Your task to perform on an android device: change the clock display to analog Image 0: 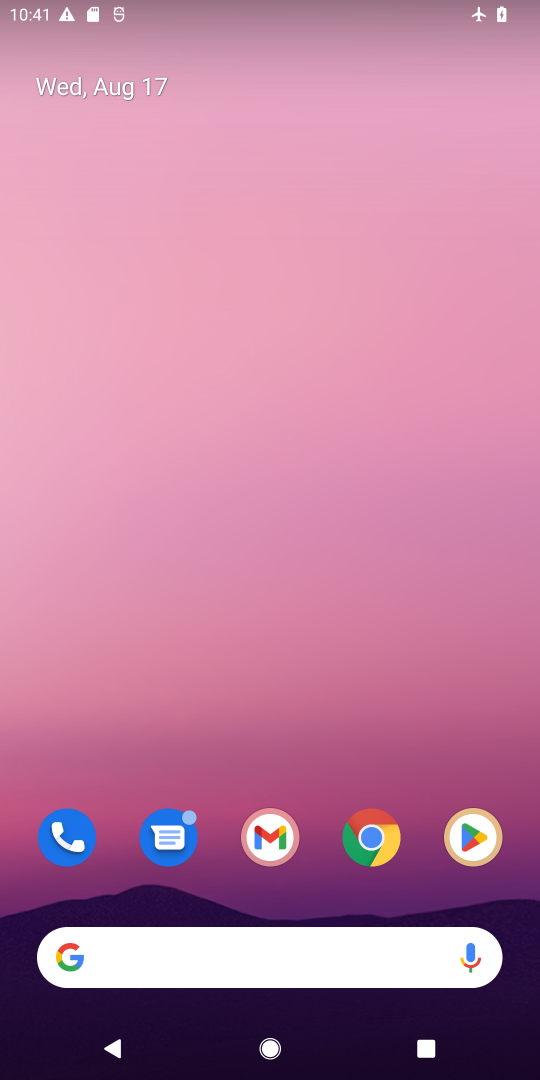
Step 0: drag from (190, 958) to (339, 194)
Your task to perform on an android device: change the clock display to analog Image 1: 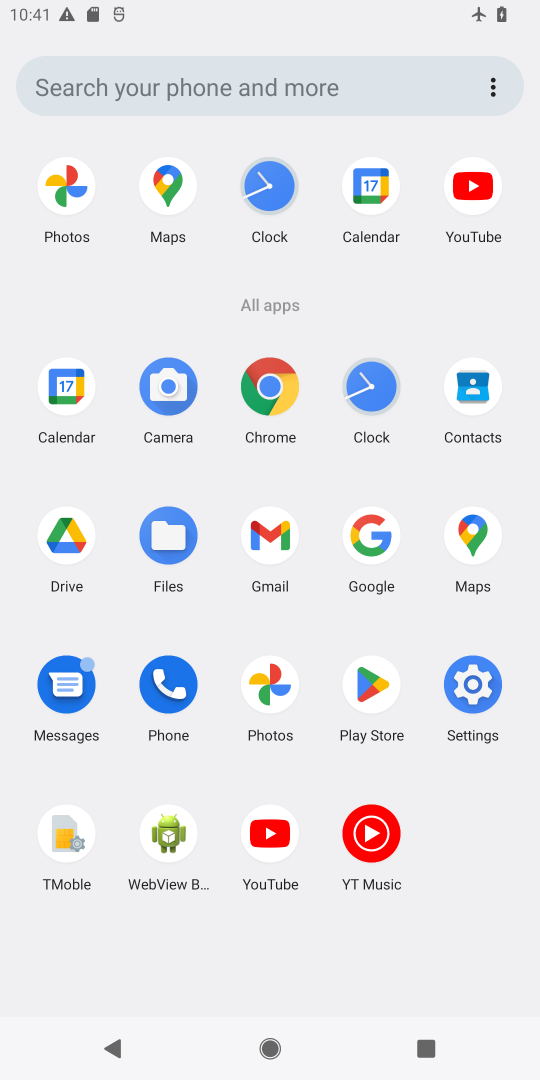
Step 1: click (271, 189)
Your task to perform on an android device: change the clock display to analog Image 2: 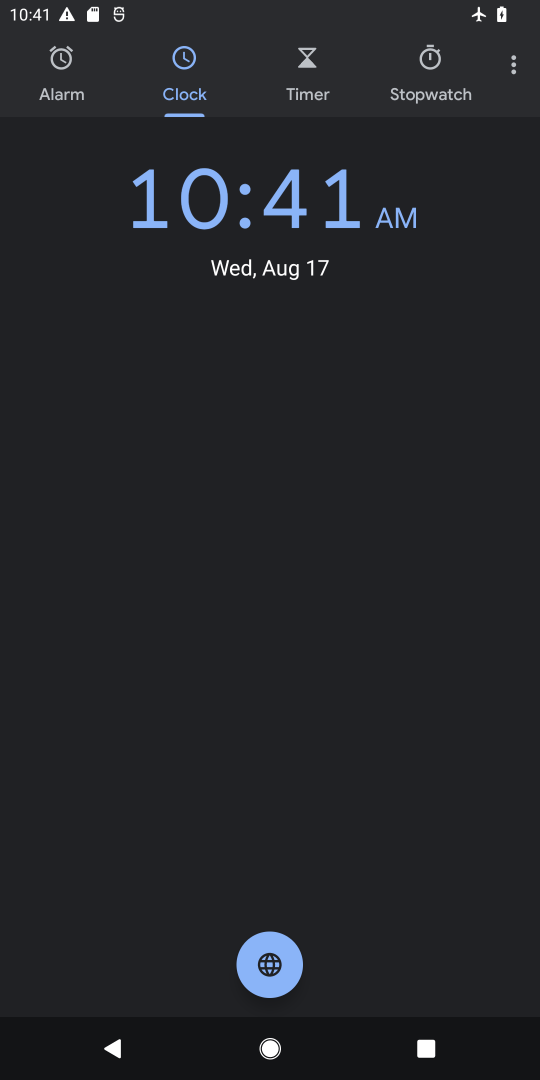
Step 2: click (513, 67)
Your task to perform on an android device: change the clock display to analog Image 3: 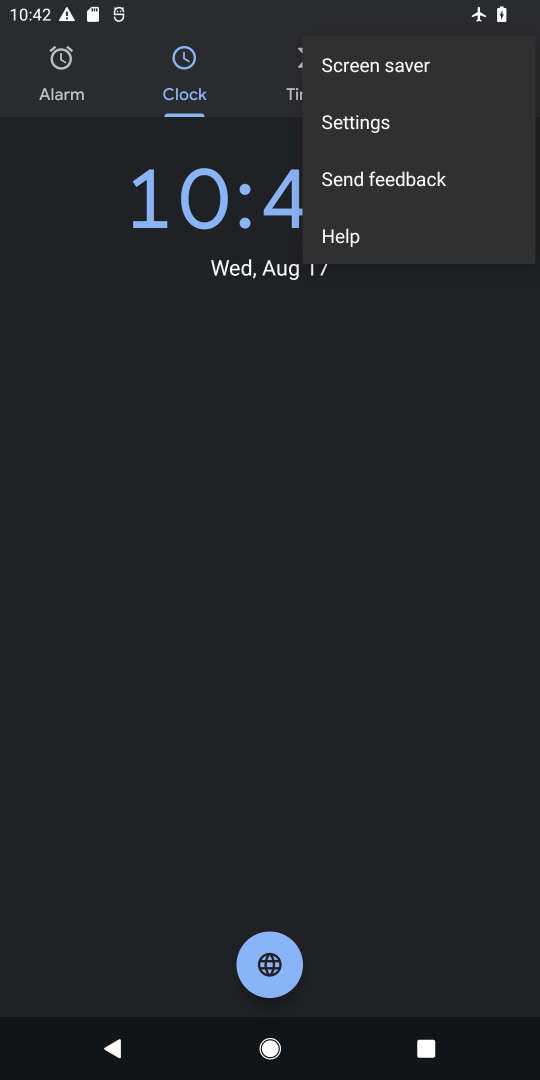
Step 3: click (380, 132)
Your task to perform on an android device: change the clock display to analog Image 4: 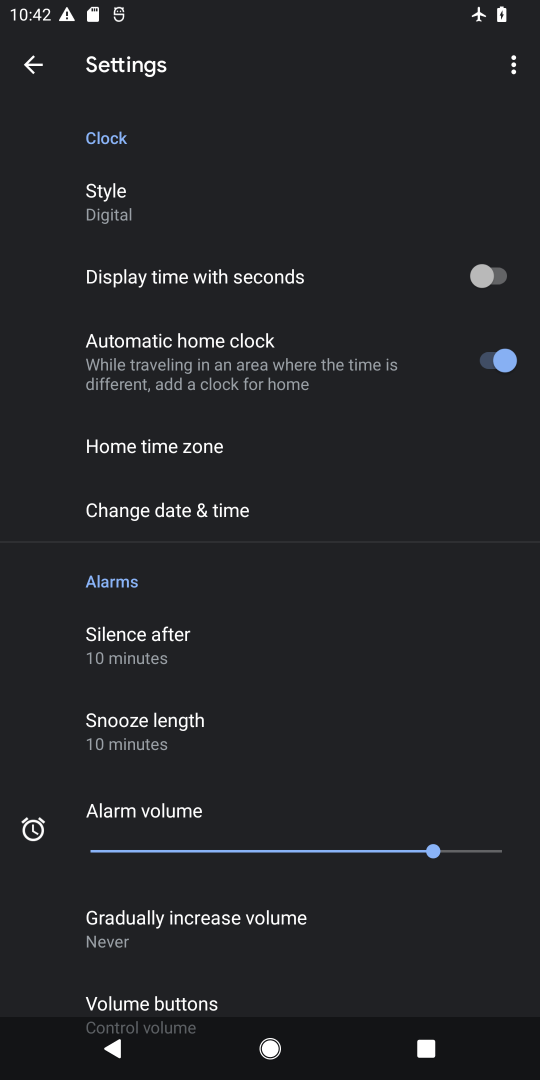
Step 4: click (106, 217)
Your task to perform on an android device: change the clock display to analog Image 5: 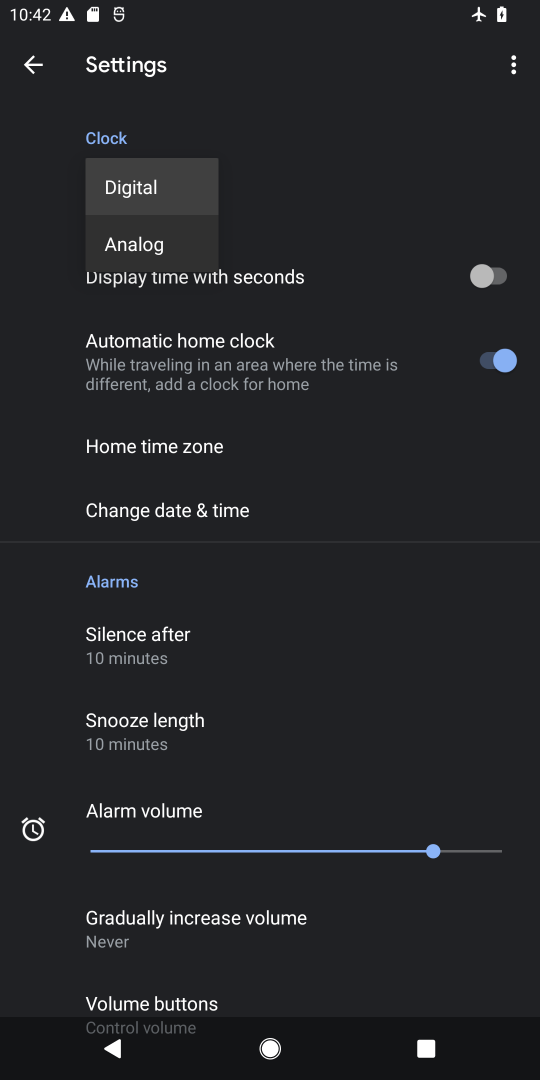
Step 5: click (124, 242)
Your task to perform on an android device: change the clock display to analog Image 6: 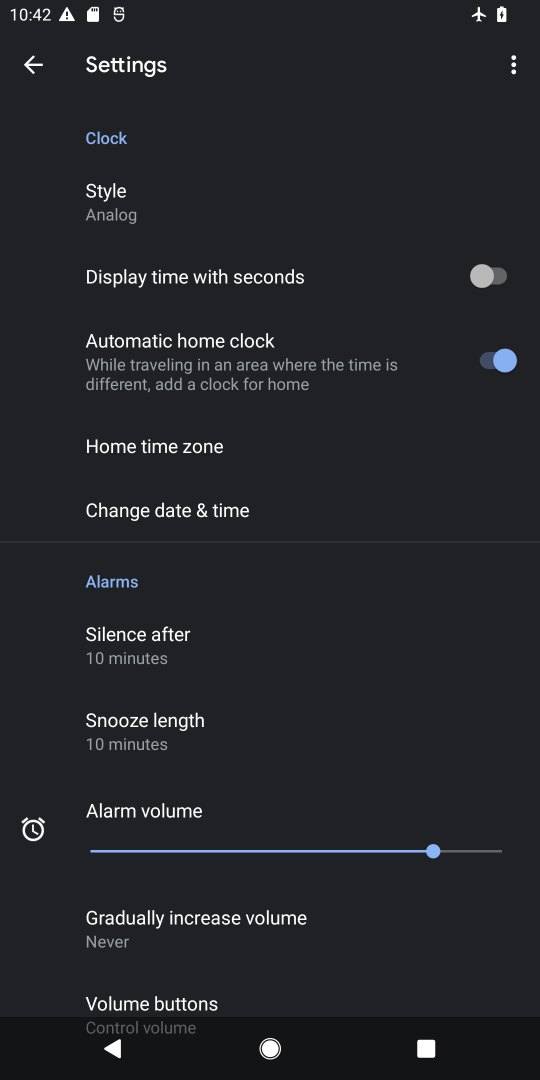
Step 6: task complete